Your task to perform on an android device: Open accessibility settings Image 0: 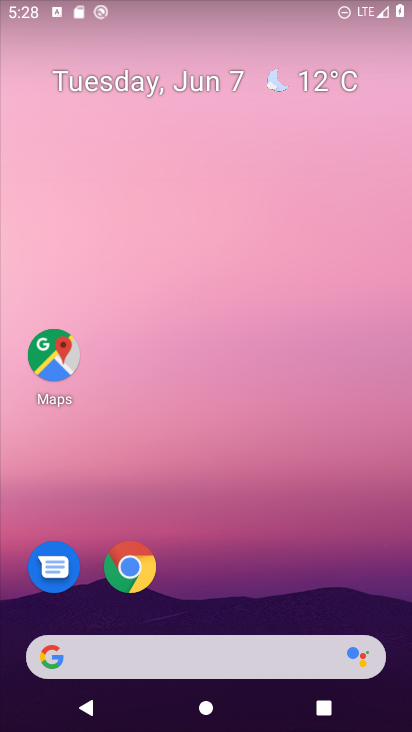
Step 0: drag from (230, 649) to (259, 13)
Your task to perform on an android device: Open accessibility settings Image 1: 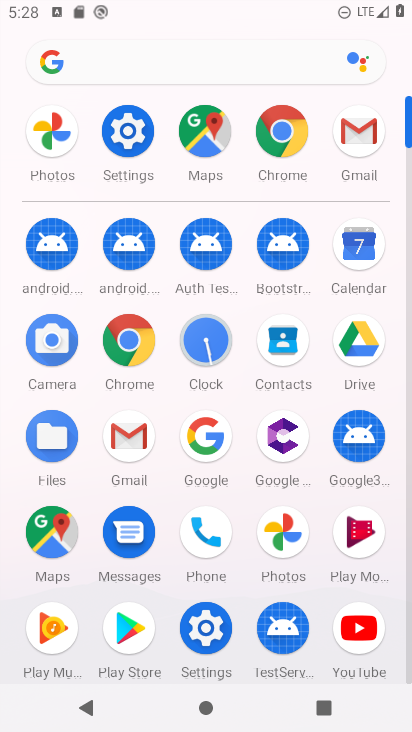
Step 1: click (125, 139)
Your task to perform on an android device: Open accessibility settings Image 2: 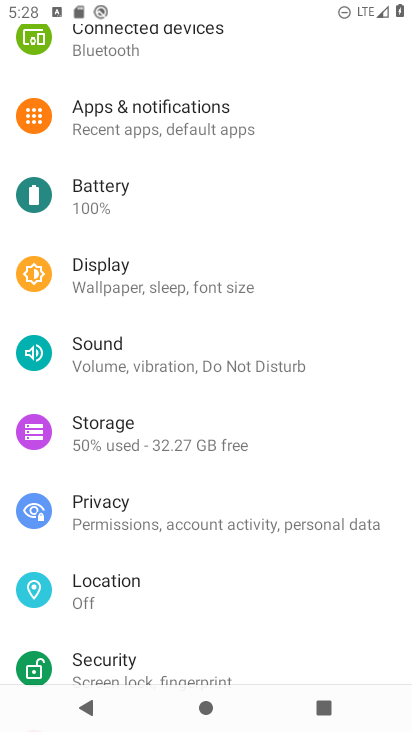
Step 2: drag from (294, 623) to (301, 24)
Your task to perform on an android device: Open accessibility settings Image 3: 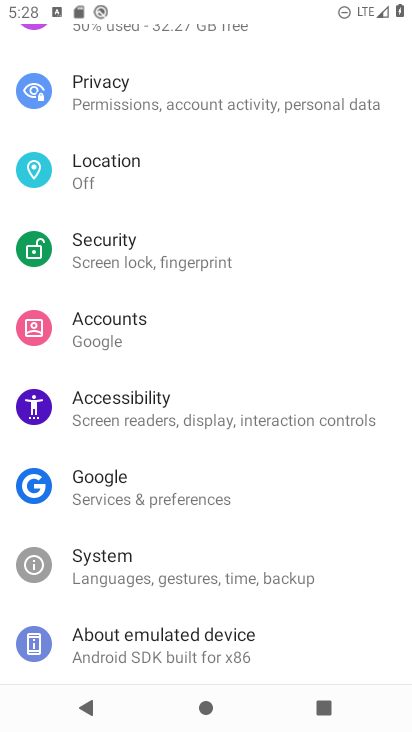
Step 3: click (180, 415)
Your task to perform on an android device: Open accessibility settings Image 4: 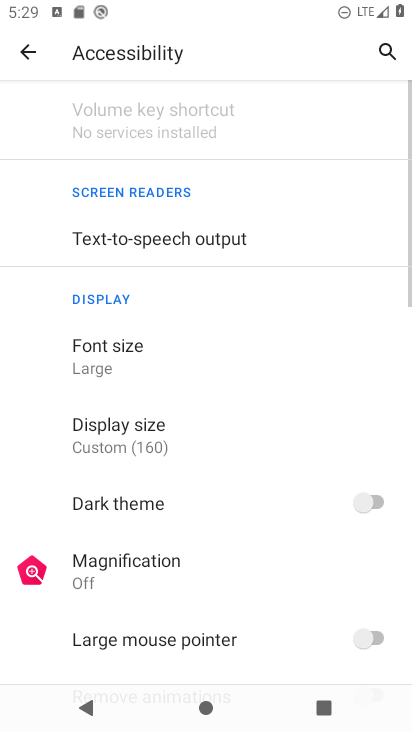
Step 4: task complete